Your task to perform on an android device: add a contact in the contacts app Image 0: 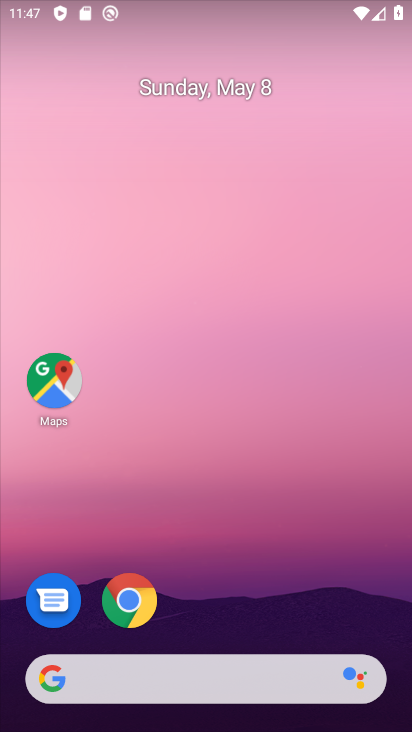
Step 0: drag from (229, 617) to (171, 185)
Your task to perform on an android device: add a contact in the contacts app Image 1: 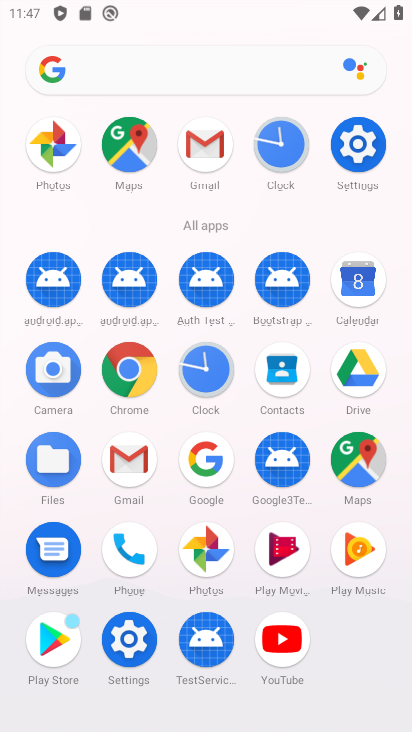
Step 1: click (289, 371)
Your task to perform on an android device: add a contact in the contacts app Image 2: 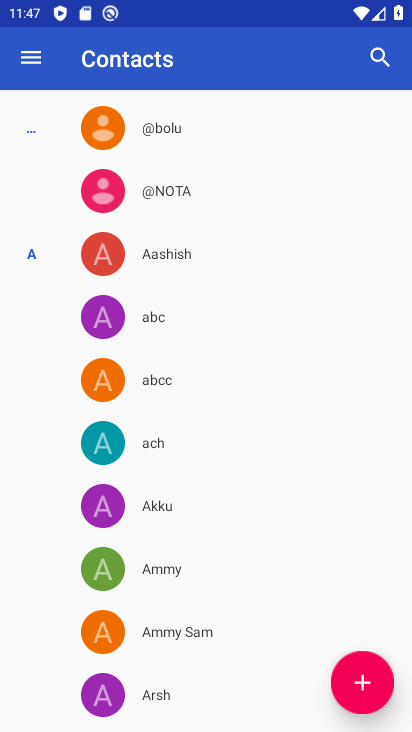
Step 2: click (350, 682)
Your task to perform on an android device: add a contact in the contacts app Image 3: 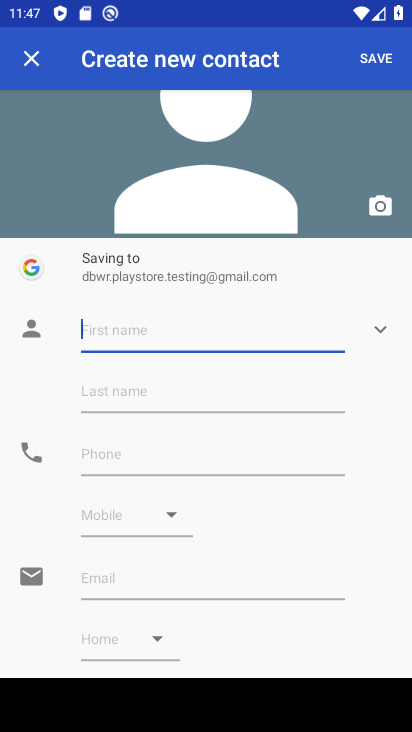
Step 3: click (190, 327)
Your task to perform on an android device: add a contact in the contacts app Image 4: 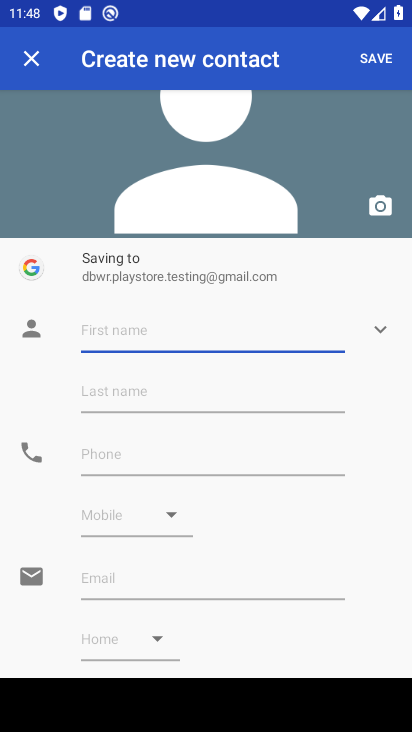
Step 4: type "jlbnjbjb"
Your task to perform on an android device: add a contact in the contacts app Image 5: 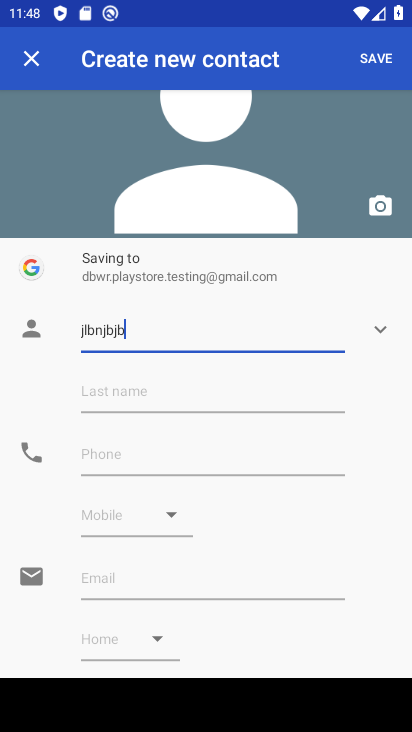
Step 5: click (258, 464)
Your task to perform on an android device: add a contact in the contacts app Image 6: 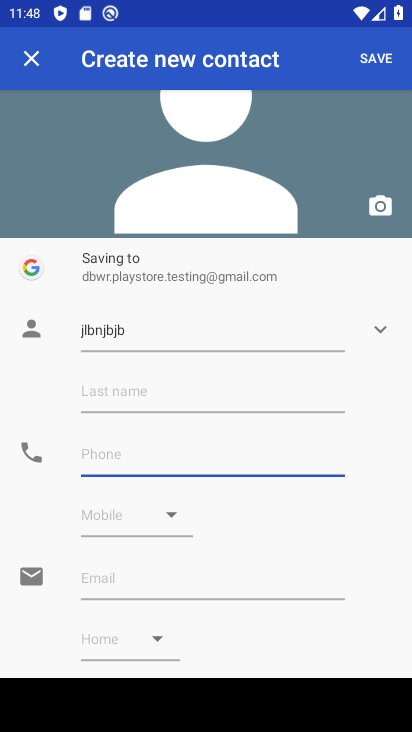
Step 6: type "839809193"
Your task to perform on an android device: add a contact in the contacts app Image 7: 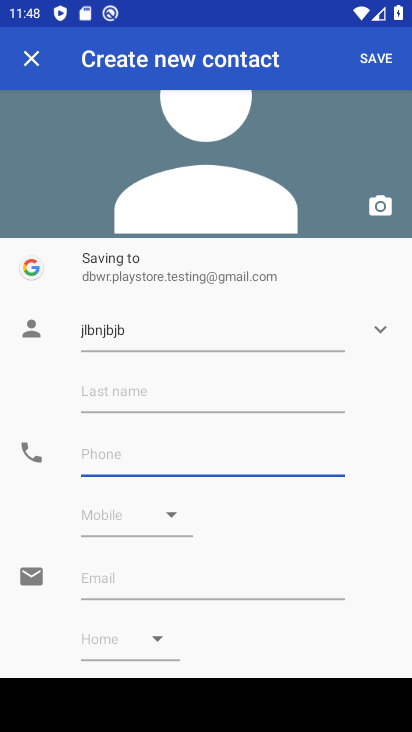
Step 7: click (403, 428)
Your task to perform on an android device: add a contact in the contacts app Image 8: 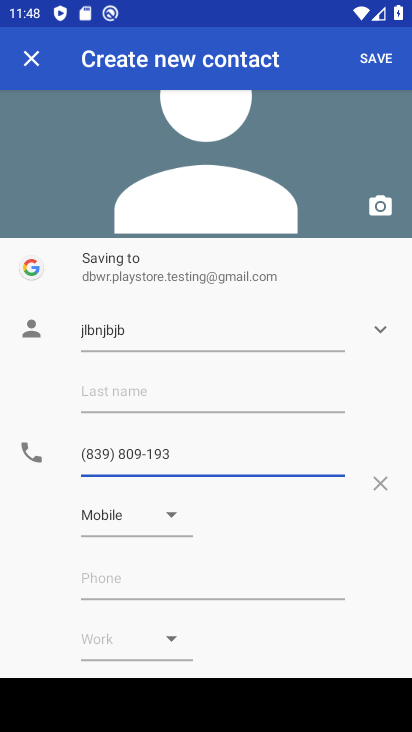
Step 8: click (375, 65)
Your task to perform on an android device: add a contact in the contacts app Image 9: 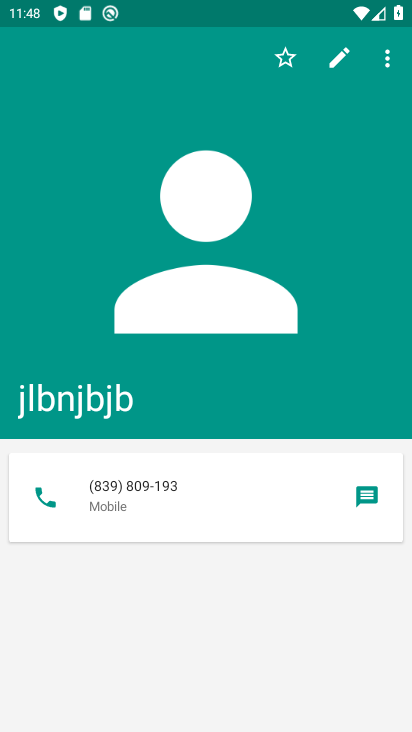
Step 9: task complete